Your task to perform on an android device: stop showing notifications on the lock screen Image 0: 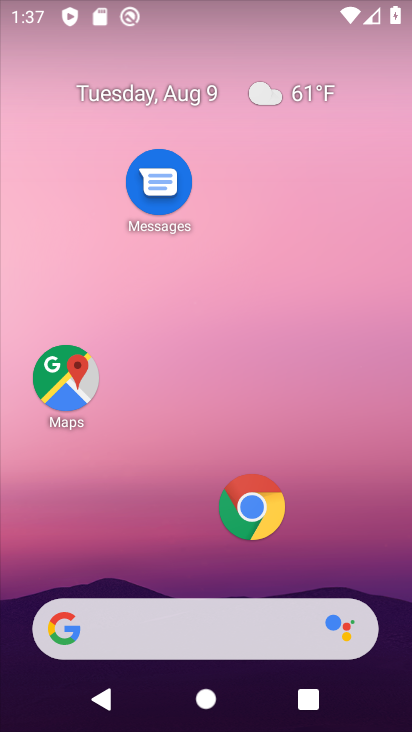
Step 0: drag from (142, 599) to (250, 0)
Your task to perform on an android device: stop showing notifications on the lock screen Image 1: 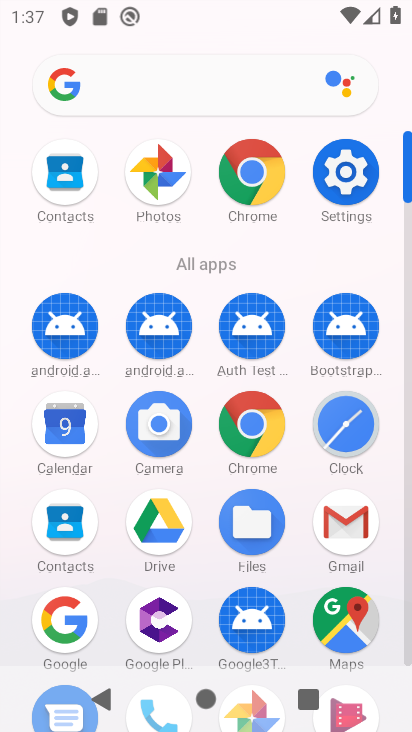
Step 1: click (340, 174)
Your task to perform on an android device: stop showing notifications on the lock screen Image 2: 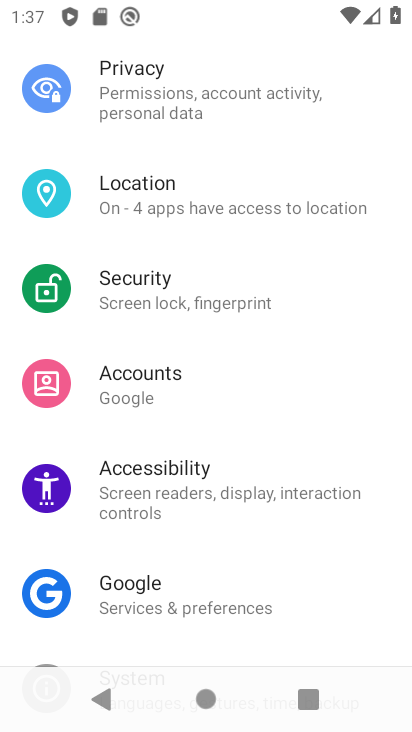
Step 2: drag from (262, 189) to (195, 666)
Your task to perform on an android device: stop showing notifications on the lock screen Image 3: 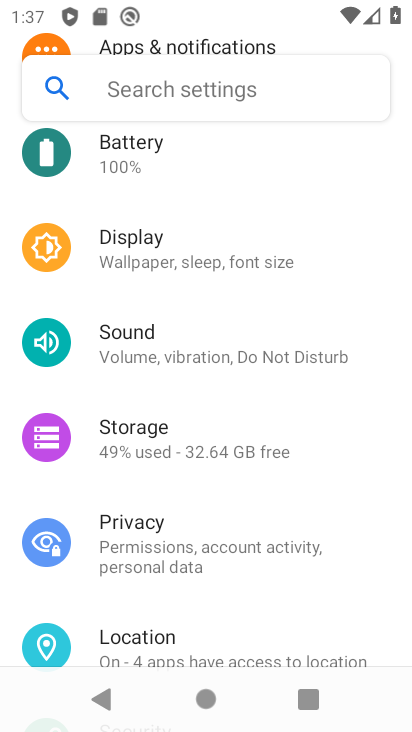
Step 3: drag from (221, 173) to (201, 581)
Your task to perform on an android device: stop showing notifications on the lock screen Image 4: 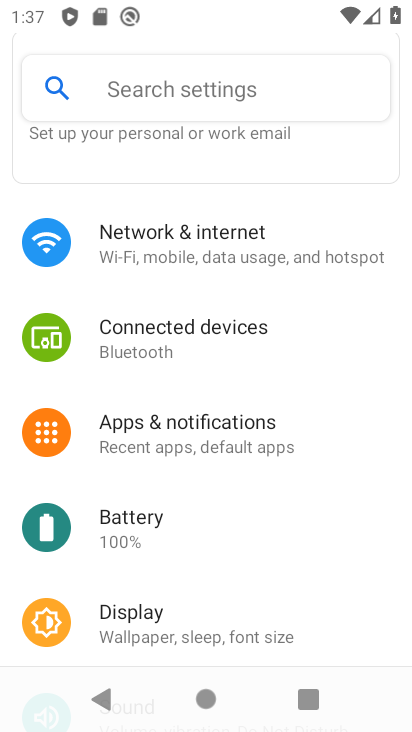
Step 4: click (200, 422)
Your task to perform on an android device: stop showing notifications on the lock screen Image 5: 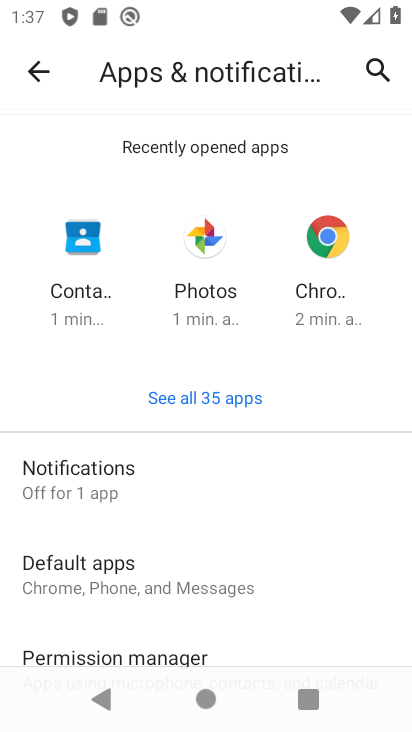
Step 5: click (134, 493)
Your task to perform on an android device: stop showing notifications on the lock screen Image 6: 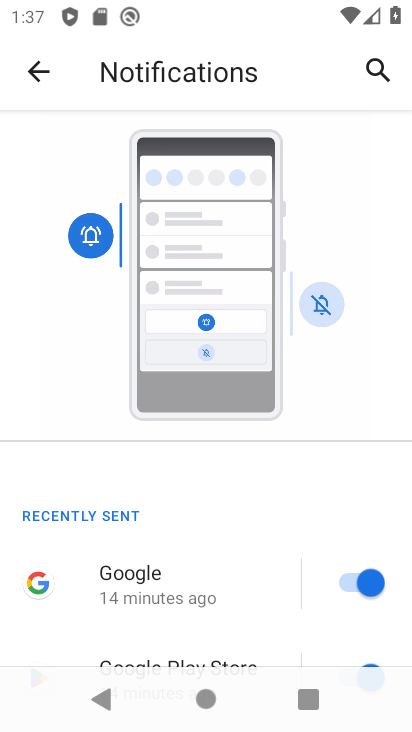
Step 6: drag from (194, 633) to (305, 66)
Your task to perform on an android device: stop showing notifications on the lock screen Image 7: 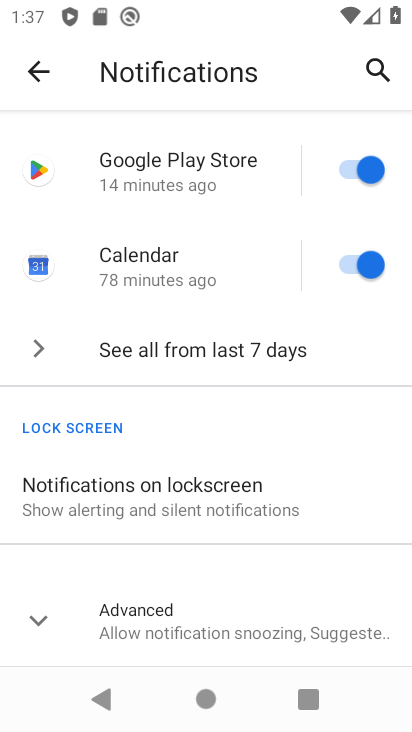
Step 7: click (161, 489)
Your task to perform on an android device: stop showing notifications on the lock screen Image 8: 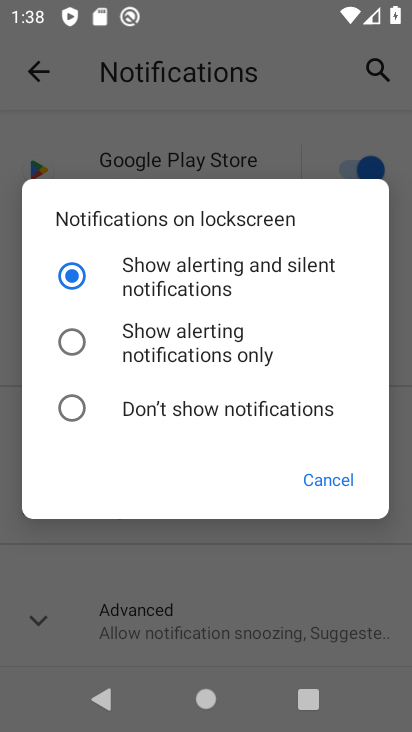
Step 8: click (69, 404)
Your task to perform on an android device: stop showing notifications on the lock screen Image 9: 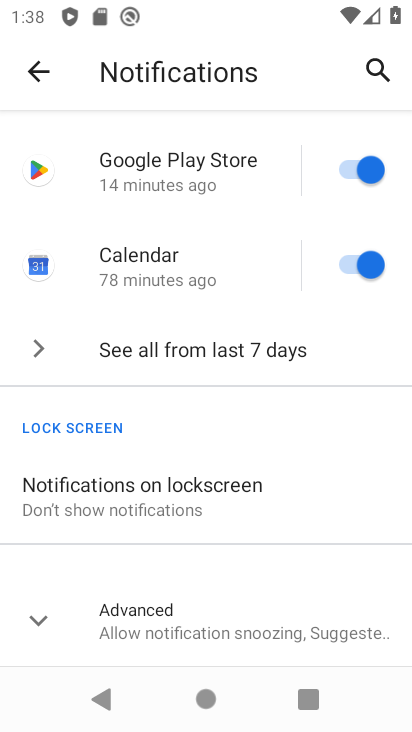
Step 9: task complete